Your task to perform on an android device: Search for sushi restaurants on Maps Image 0: 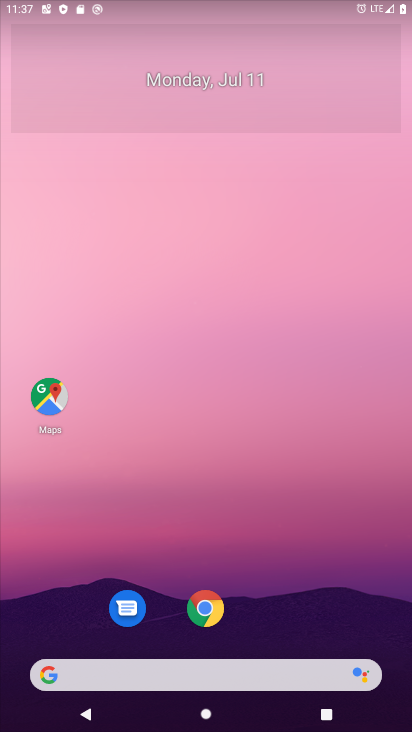
Step 0: click (41, 399)
Your task to perform on an android device: Search for sushi restaurants on Maps Image 1: 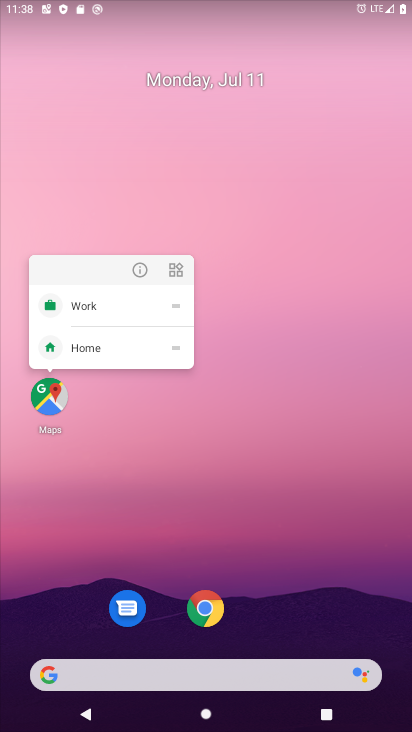
Step 1: click (43, 405)
Your task to perform on an android device: Search for sushi restaurants on Maps Image 2: 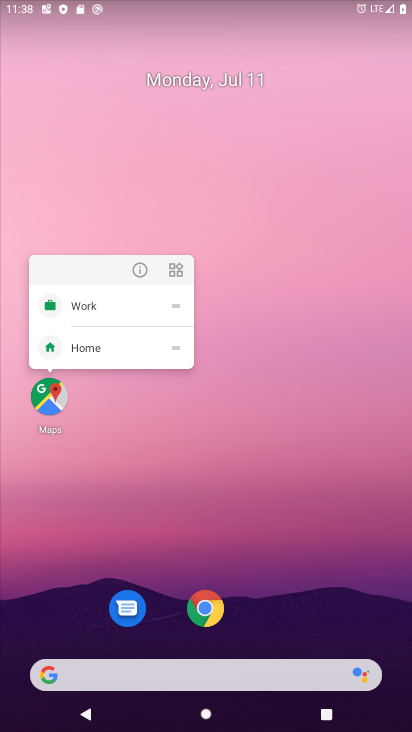
Step 2: click (42, 406)
Your task to perform on an android device: Search for sushi restaurants on Maps Image 3: 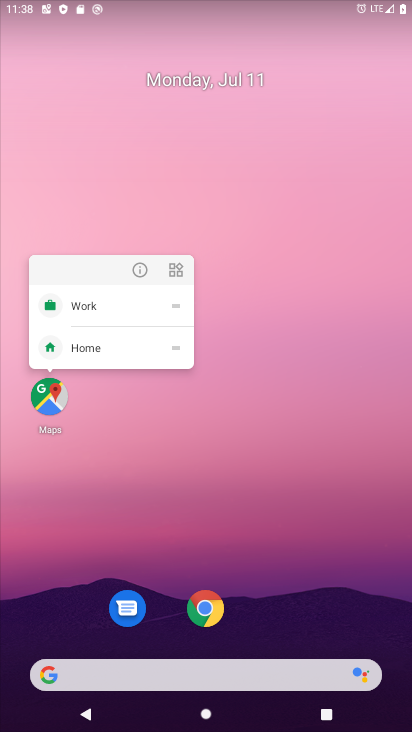
Step 3: click (46, 390)
Your task to perform on an android device: Search for sushi restaurants on Maps Image 4: 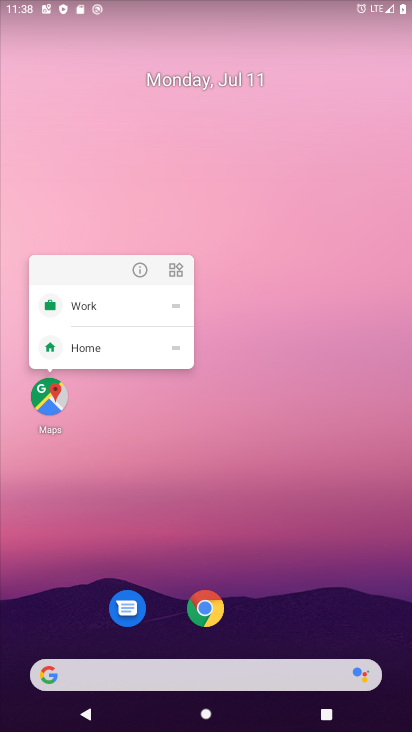
Step 4: click (51, 395)
Your task to perform on an android device: Search for sushi restaurants on Maps Image 5: 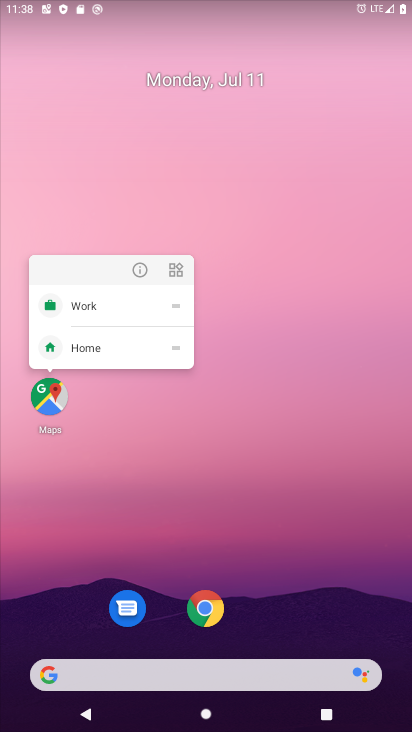
Step 5: click (51, 395)
Your task to perform on an android device: Search for sushi restaurants on Maps Image 6: 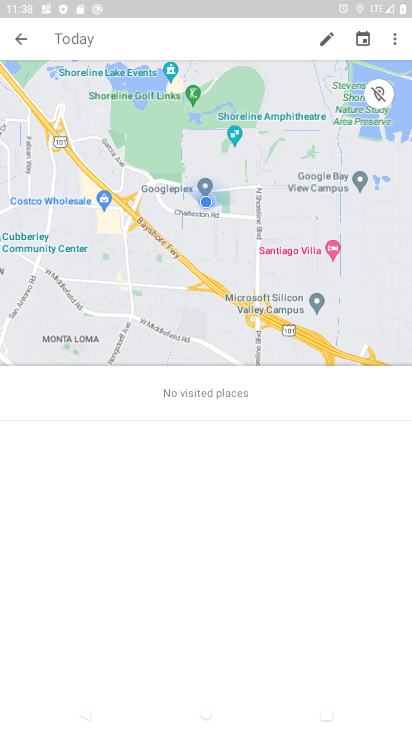
Step 6: click (61, 39)
Your task to perform on an android device: Search for sushi restaurants on Maps Image 7: 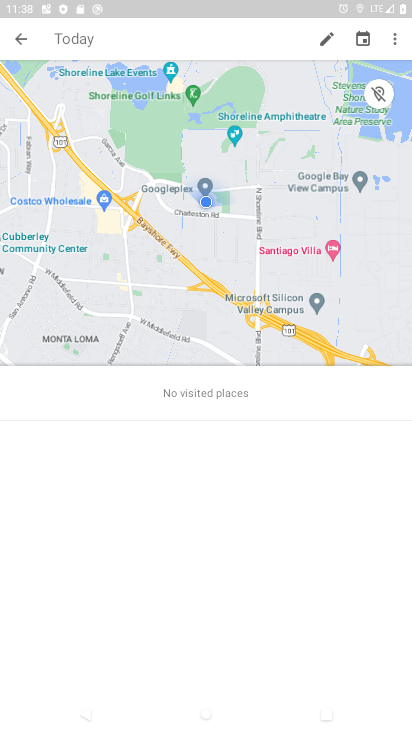
Step 7: click (72, 40)
Your task to perform on an android device: Search for sushi restaurants on Maps Image 8: 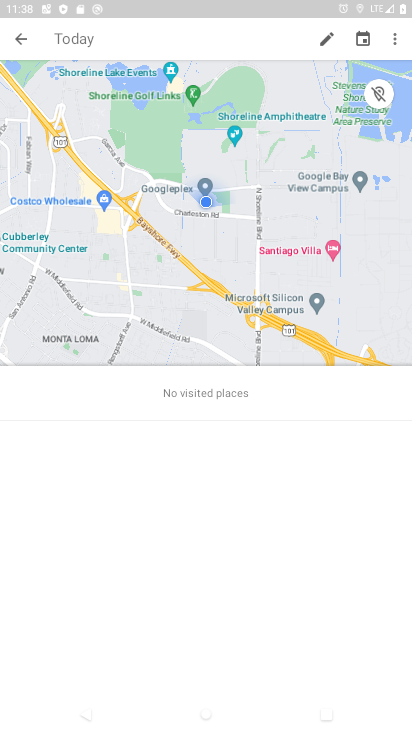
Step 8: click (19, 43)
Your task to perform on an android device: Search for sushi restaurants on Maps Image 9: 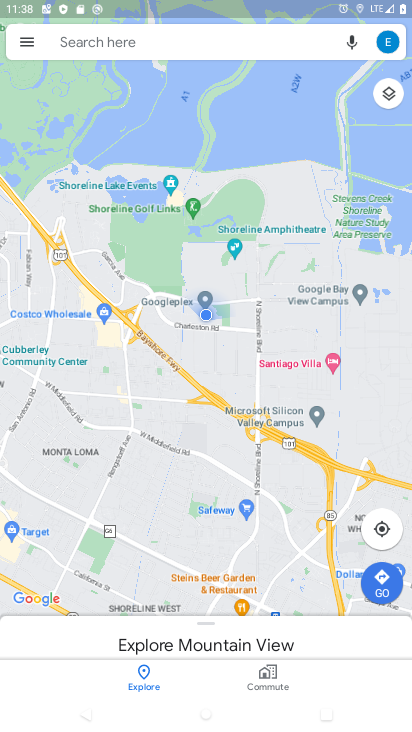
Step 9: click (95, 39)
Your task to perform on an android device: Search for sushi restaurants on Maps Image 10: 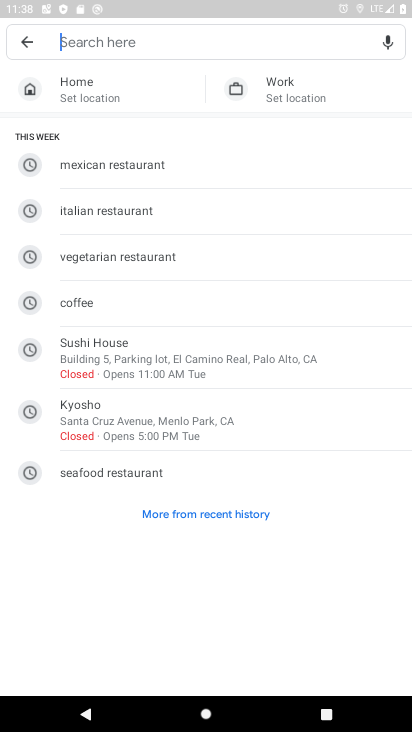
Step 10: type "sushi restaurants"
Your task to perform on an android device: Search for sushi restaurants on Maps Image 11: 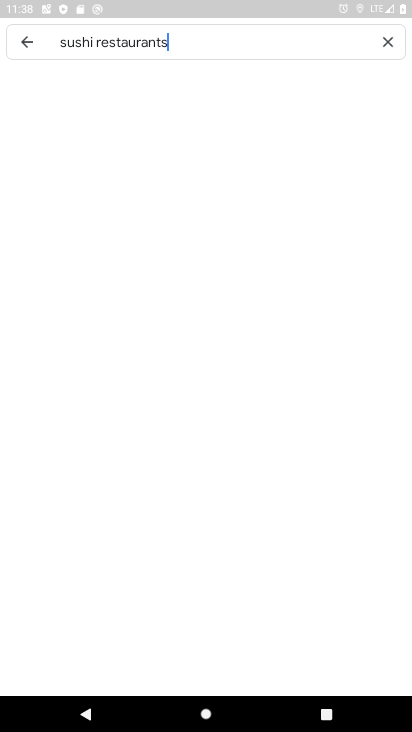
Step 11: type ""
Your task to perform on an android device: Search for sushi restaurants on Maps Image 12: 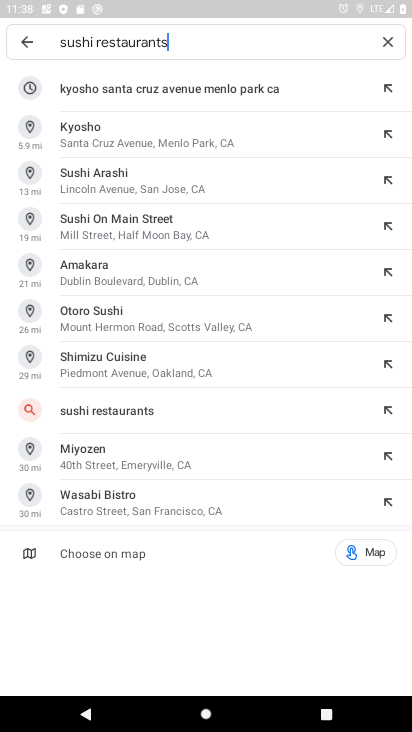
Step 12: type ""
Your task to perform on an android device: Search for sushi restaurants on Maps Image 13: 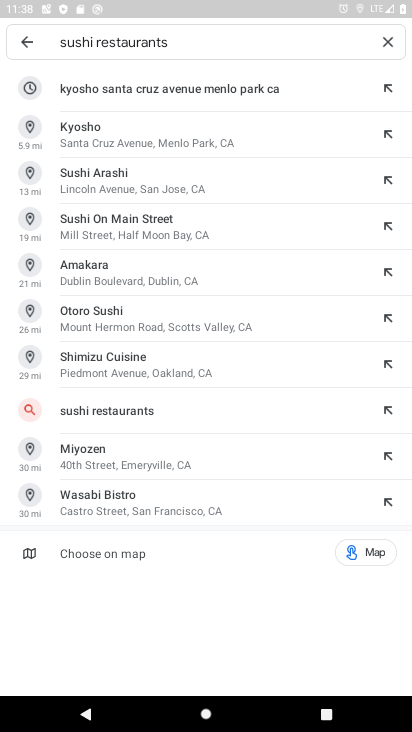
Step 13: type ""
Your task to perform on an android device: Search for sushi restaurants on Maps Image 14: 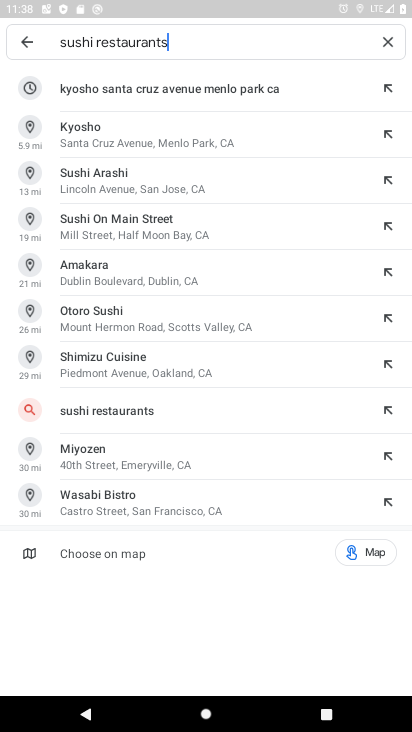
Step 14: task complete